Your task to perform on an android device: open chrome and create a bookmark for the current page Image 0: 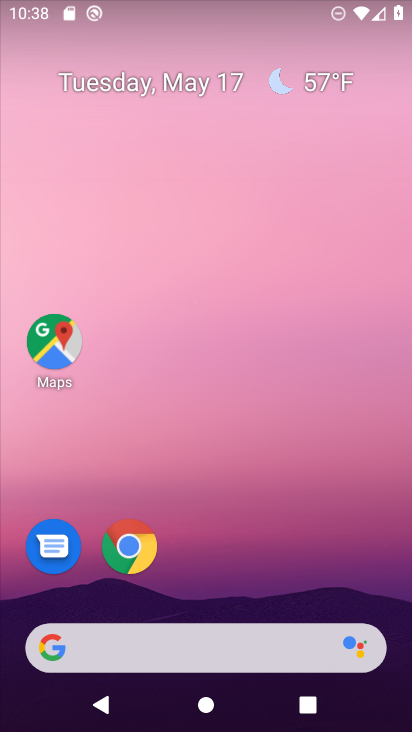
Step 0: click (135, 551)
Your task to perform on an android device: open chrome and create a bookmark for the current page Image 1: 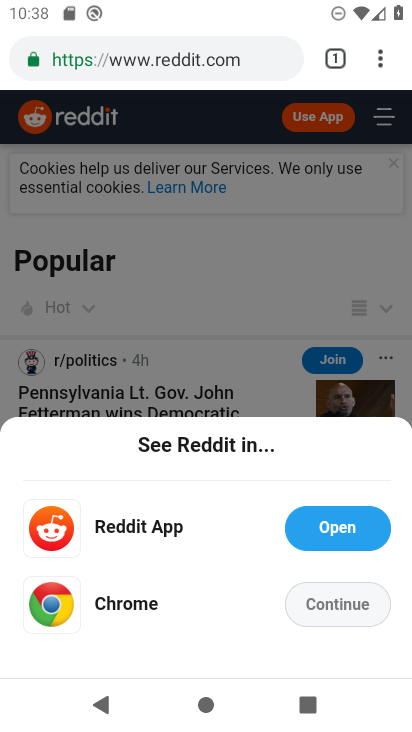
Step 1: click (381, 62)
Your task to perform on an android device: open chrome and create a bookmark for the current page Image 2: 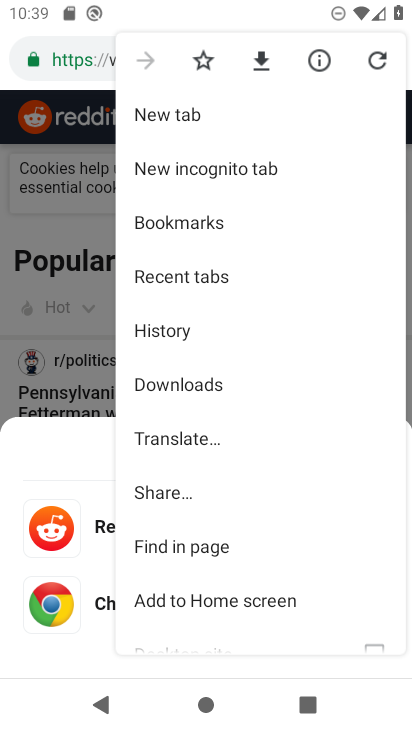
Step 2: click (202, 62)
Your task to perform on an android device: open chrome and create a bookmark for the current page Image 3: 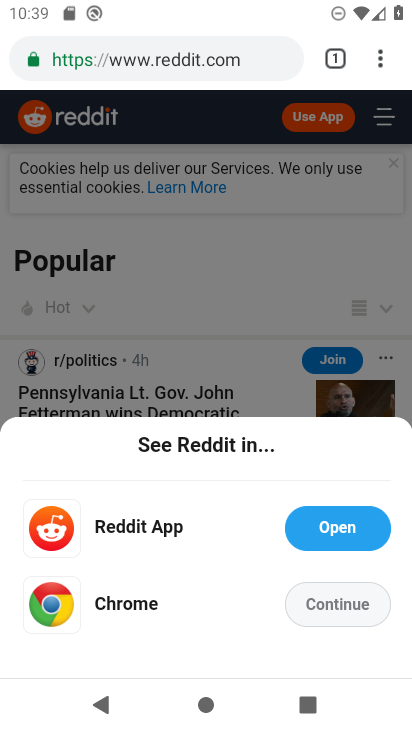
Step 3: task complete